Your task to perform on an android device: see sites visited before in the chrome app Image 0: 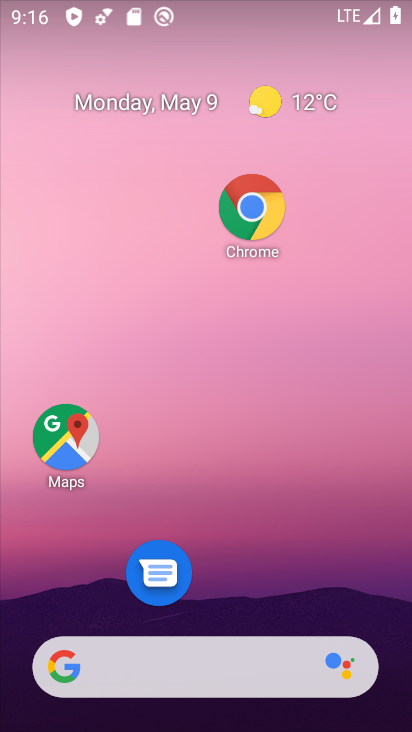
Step 0: drag from (295, 595) to (303, 123)
Your task to perform on an android device: see sites visited before in the chrome app Image 1: 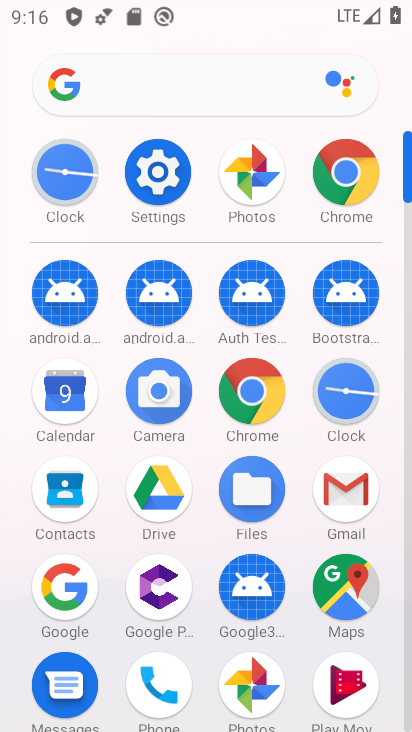
Step 1: click (255, 423)
Your task to perform on an android device: see sites visited before in the chrome app Image 2: 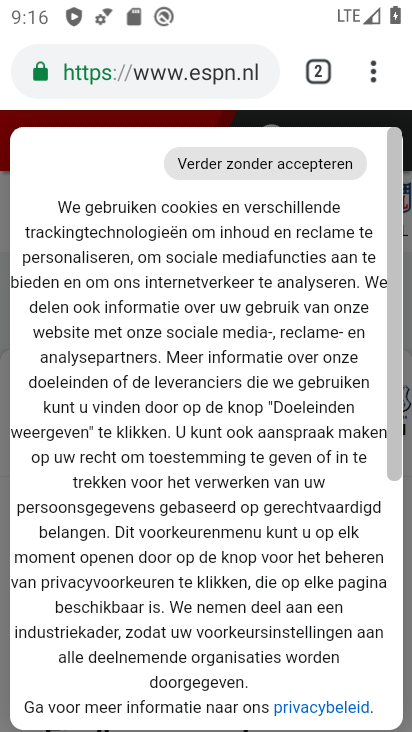
Step 2: click (371, 82)
Your task to perform on an android device: see sites visited before in the chrome app Image 3: 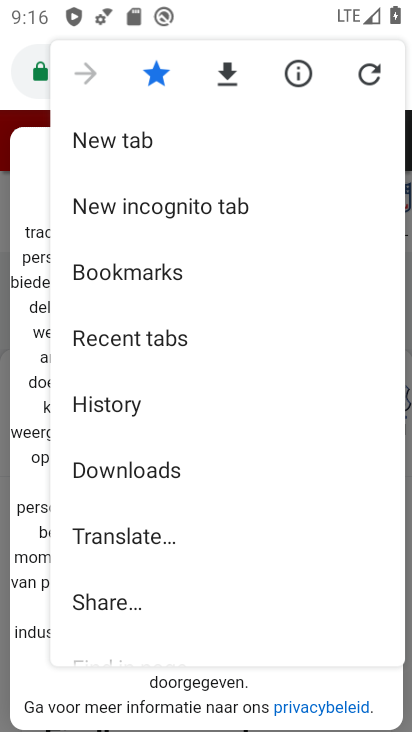
Step 3: drag from (196, 509) to (201, 325)
Your task to perform on an android device: see sites visited before in the chrome app Image 4: 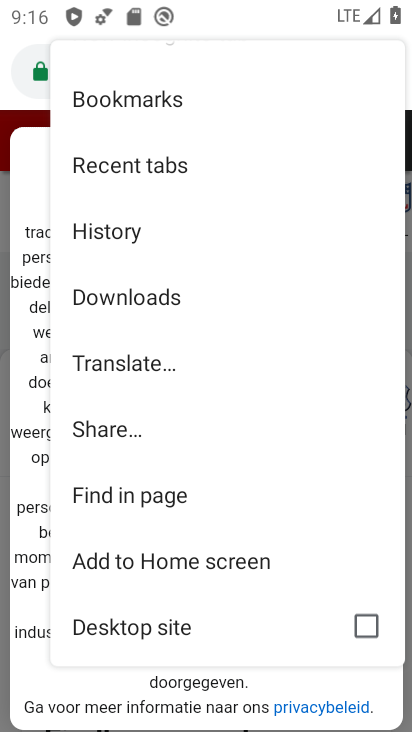
Step 4: click (165, 221)
Your task to perform on an android device: see sites visited before in the chrome app Image 5: 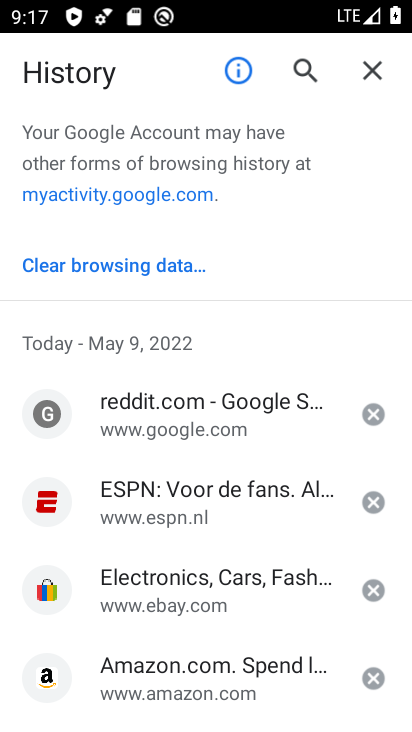
Step 5: task complete